Your task to perform on an android device: turn pop-ups off in chrome Image 0: 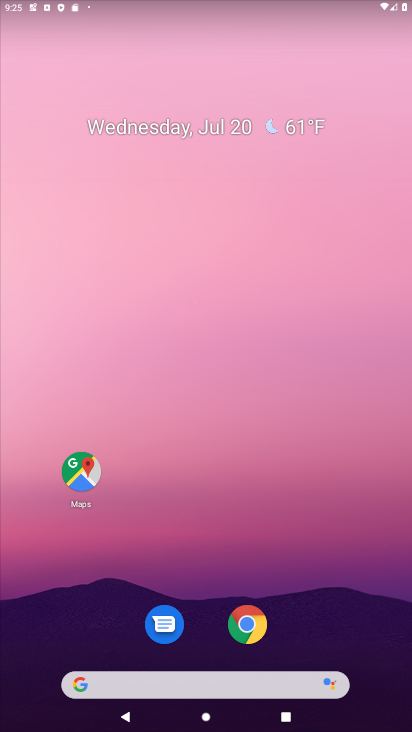
Step 0: click (258, 622)
Your task to perform on an android device: turn pop-ups off in chrome Image 1: 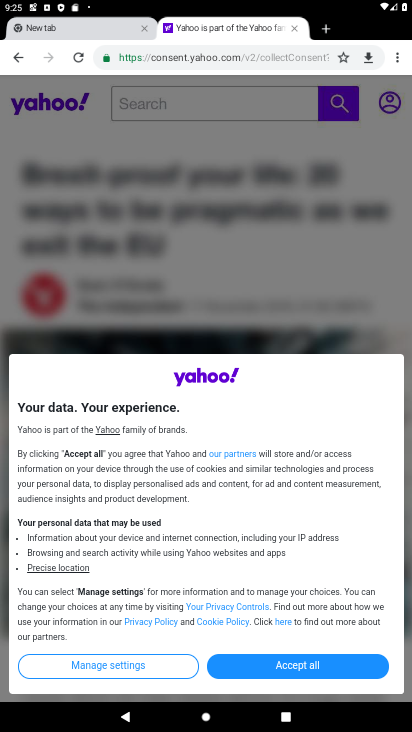
Step 1: click (390, 54)
Your task to perform on an android device: turn pop-ups off in chrome Image 2: 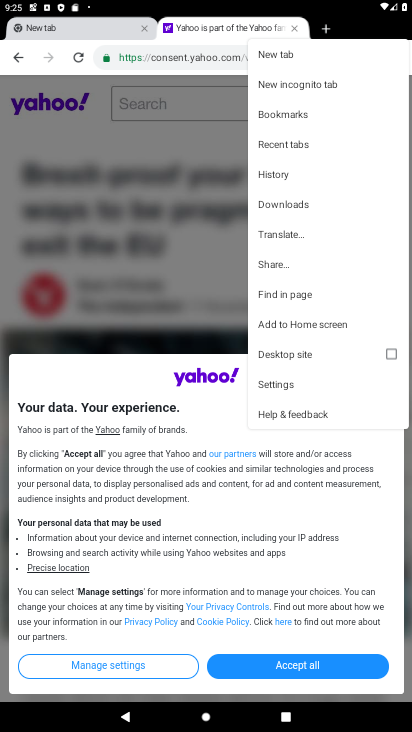
Step 2: click (299, 376)
Your task to perform on an android device: turn pop-ups off in chrome Image 3: 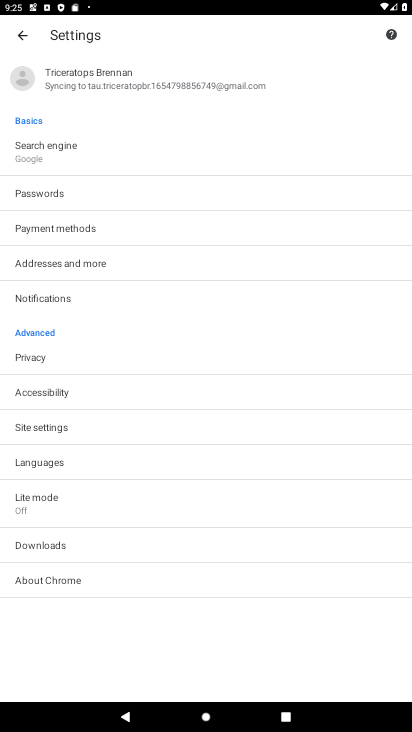
Step 3: click (44, 426)
Your task to perform on an android device: turn pop-ups off in chrome Image 4: 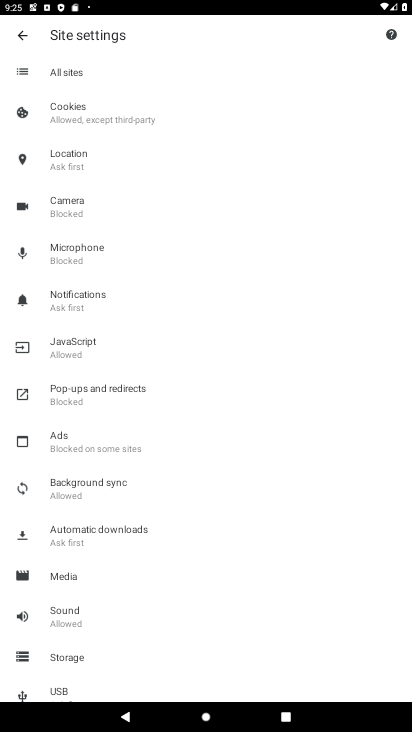
Step 4: click (72, 394)
Your task to perform on an android device: turn pop-ups off in chrome Image 5: 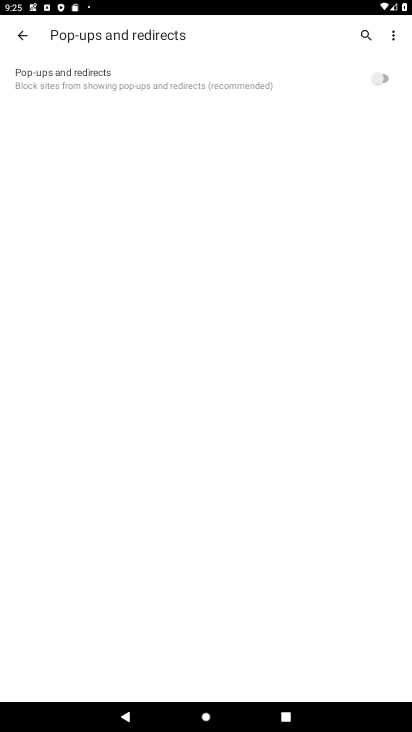
Step 5: task complete